Your task to perform on an android device: What's on my calendar tomorrow? Image 0: 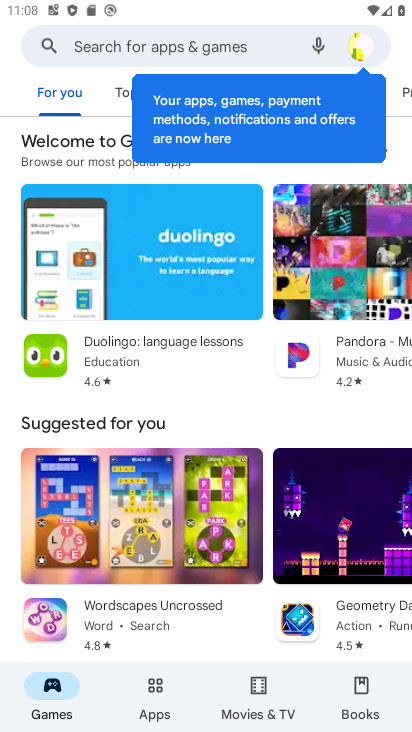
Step 0: press back button
Your task to perform on an android device: What's on my calendar tomorrow? Image 1: 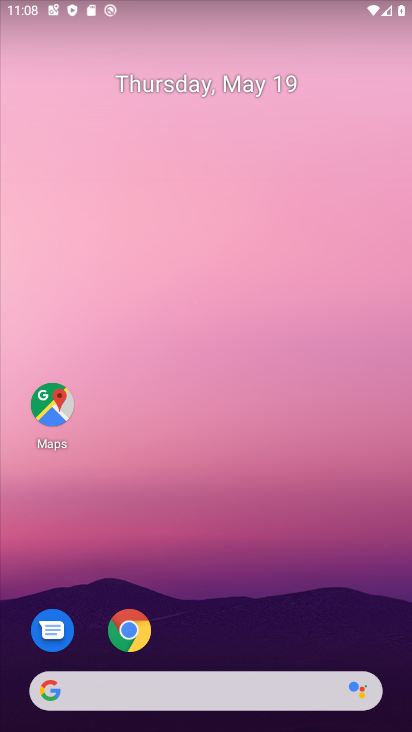
Step 1: drag from (218, 610) to (191, 144)
Your task to perform on an android device: What's on my calendar tomorrow? Image 2: 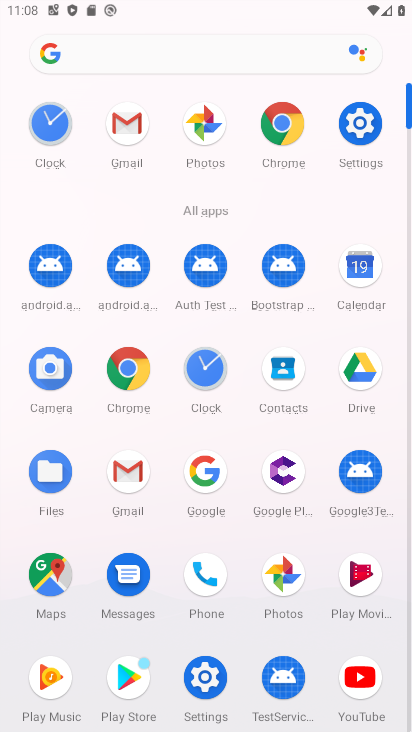
Step 2: click (362, 269)
Your task to perform on an android device: What's on my calendar tomorrow? Image 3: 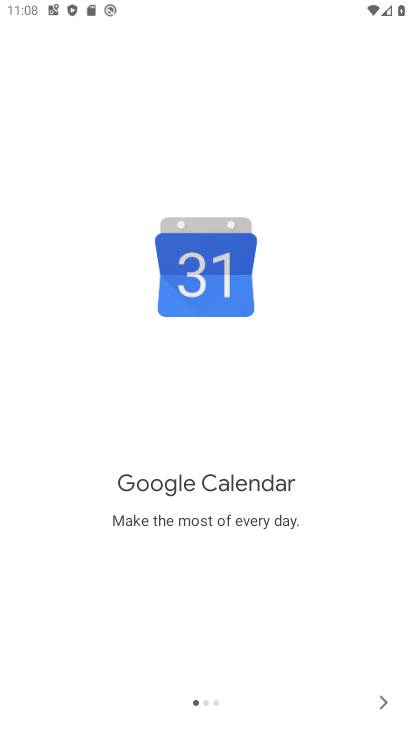
Step 3: click (381, 704)
Your task to perform on an android device: What's on my calendar tomorrow? Image 4: 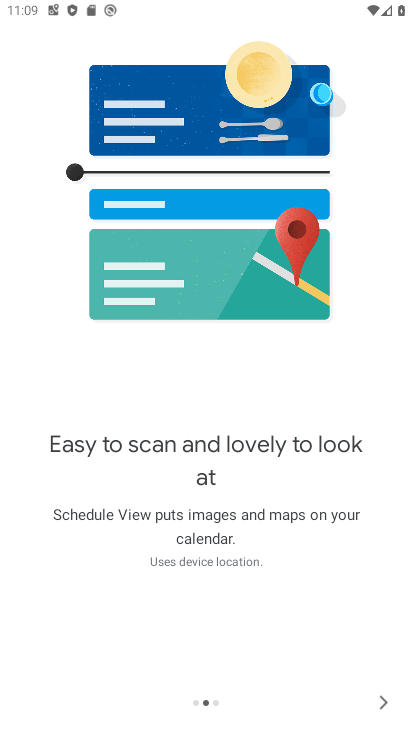
Step 4: click (381, 704)
Your task to perform on an android device: What's on my calendar tomorrow? Image 5: 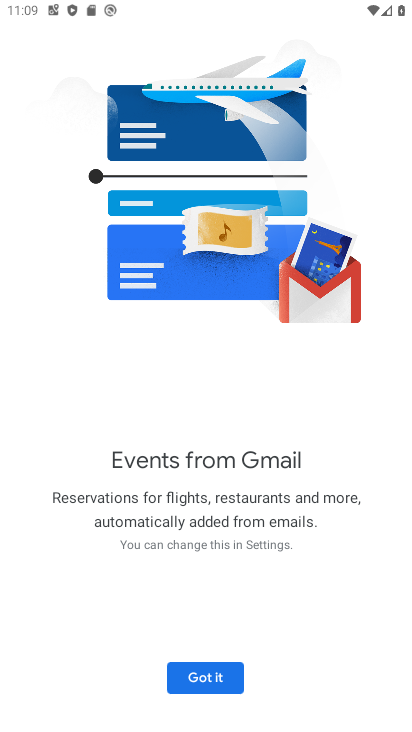
Step 5: click (205, 685)
Your task to perform on an android device: What's on my calendar tomorrow? Image 6: 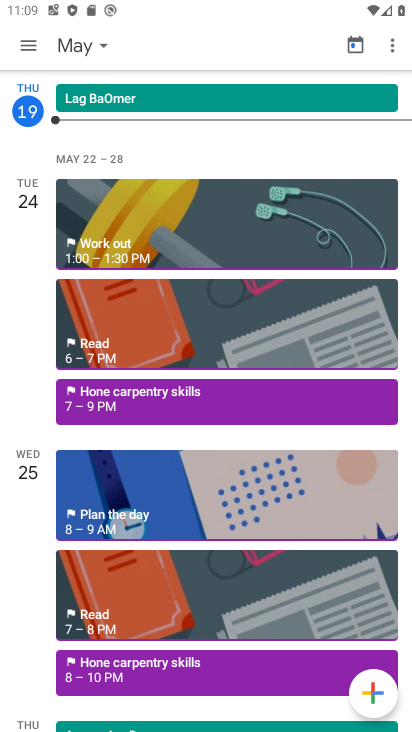
Step 6: click (105, 38)
Your task to perform on an android device: What's on my calendar tomorrow? Image 7: 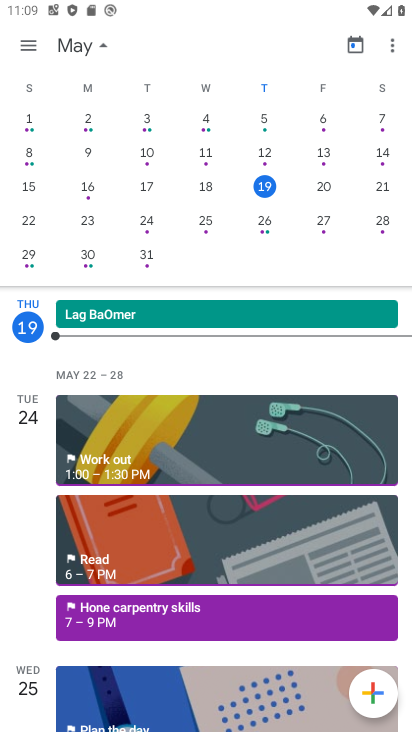
Step 7: click (325, 181)
Your task to perform on an android device: What's on my calendar tomorrow? Image 8: 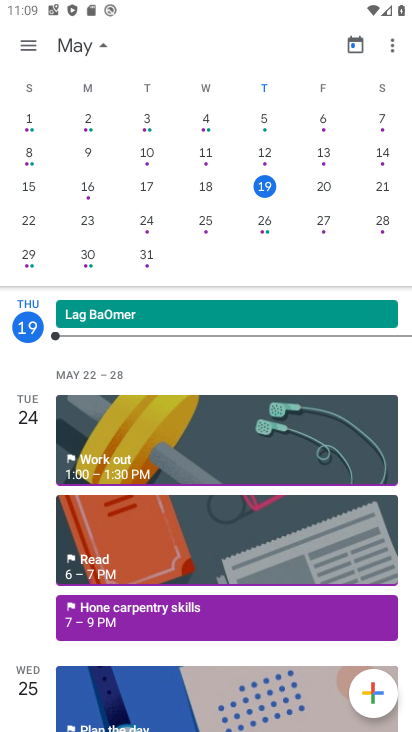
Step 8: click (325, 181)
Your task to perform on an android device: What's on my calendar tomorrow? Image 9: 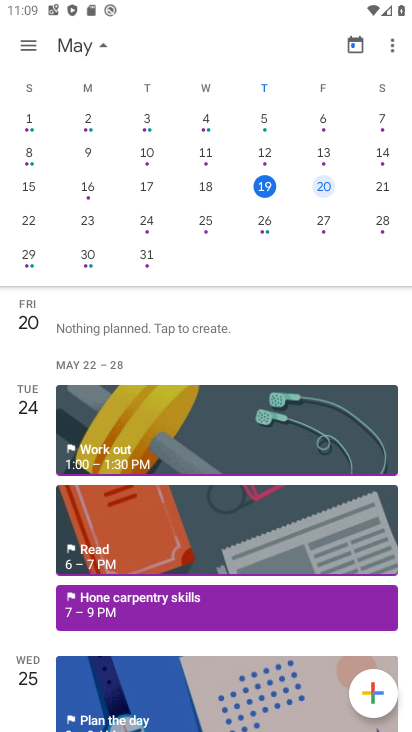
Step 9: task complete